Your task to perform on an android device: Open the map Image 0: 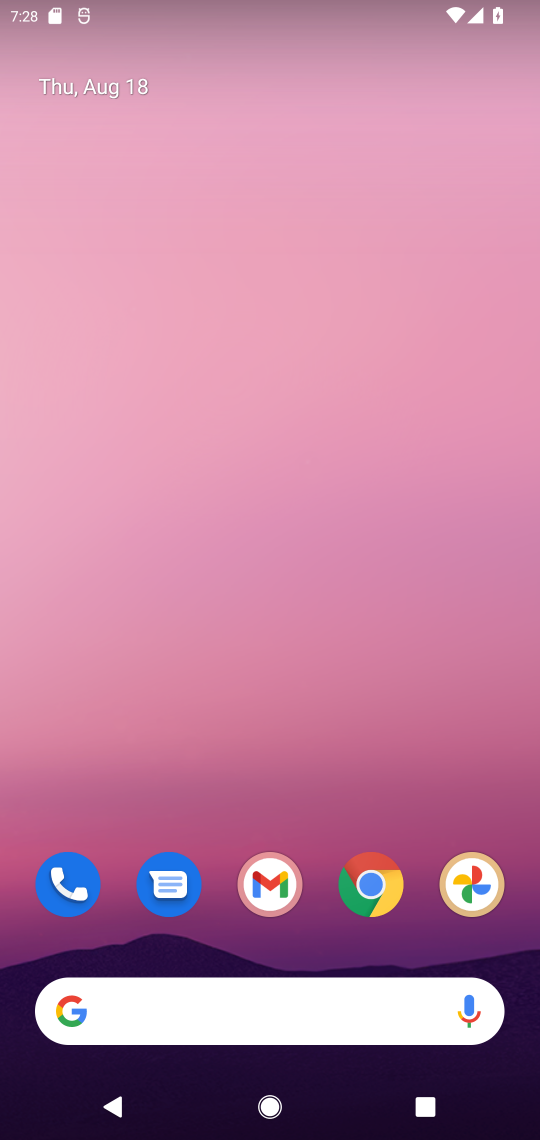
Step 0: drag from (201, 954) to (319, 45)
Your task to perform on an android device: Open the map Image 1: 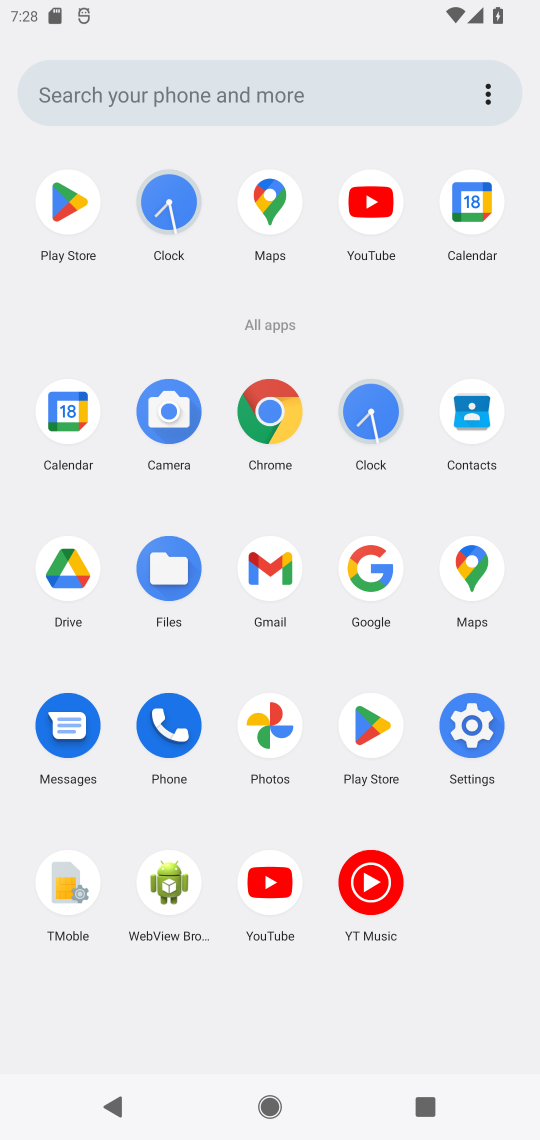
Step 1: click (265, 198)
Your task to perform on an android device: Open the map Image 2: 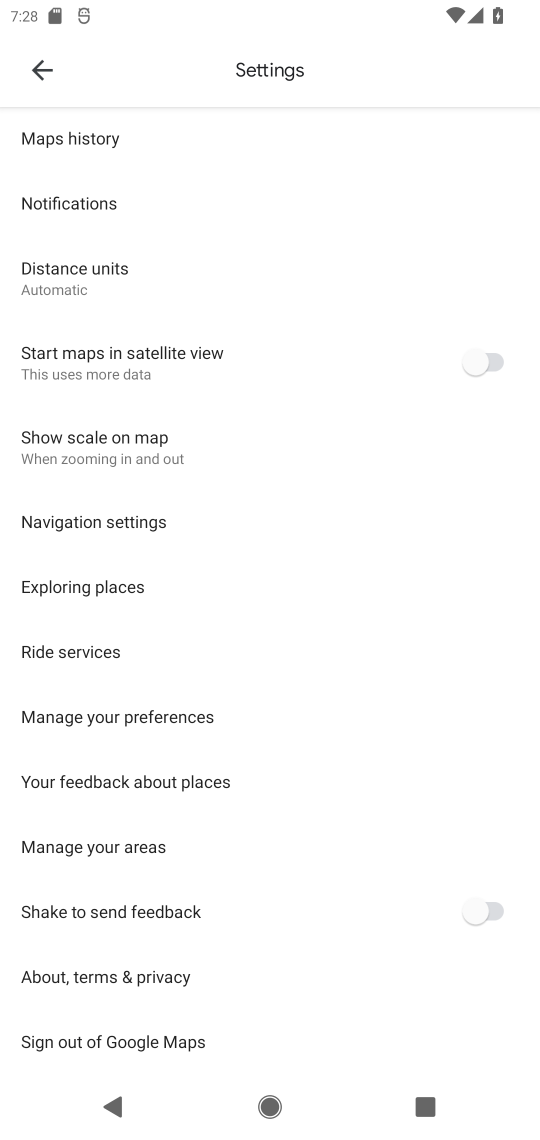
Step 2: click (58, 84)
Your task to perform on an android device: Open the map Image 3: 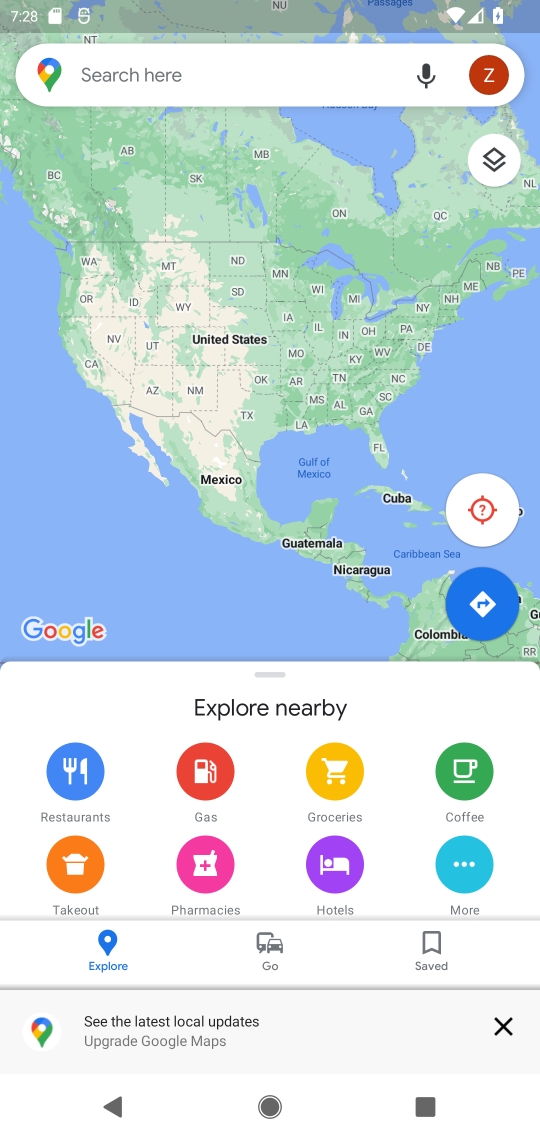
Step 3: task complete